Your task to perform on an android device: choose inbox layout in the gmail app Image 0: 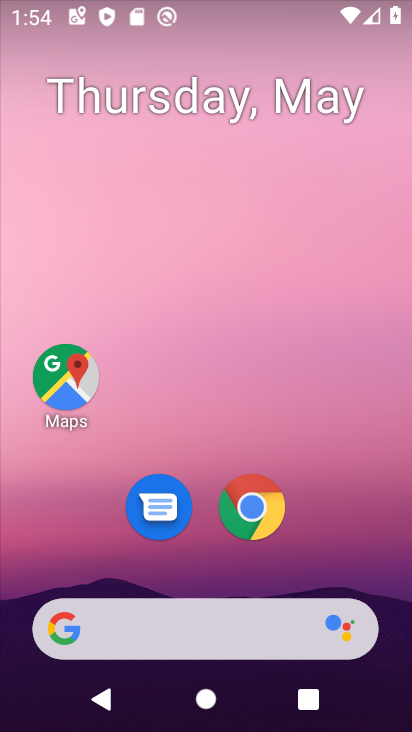
Step 0: drag from (291, 542) to (323, 69)
Your task to perform on an android device: choose inbox layout in the gmail app Image 1: 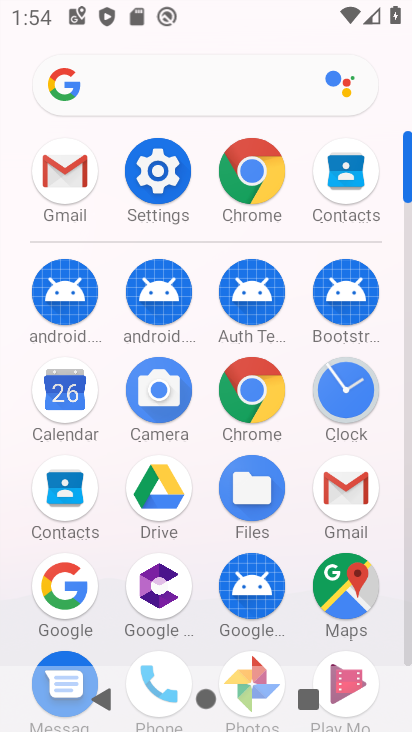
Step 1: click (353, 503)
Your task to perform on an android device: choose inbox layout in the gmail app Image 2: 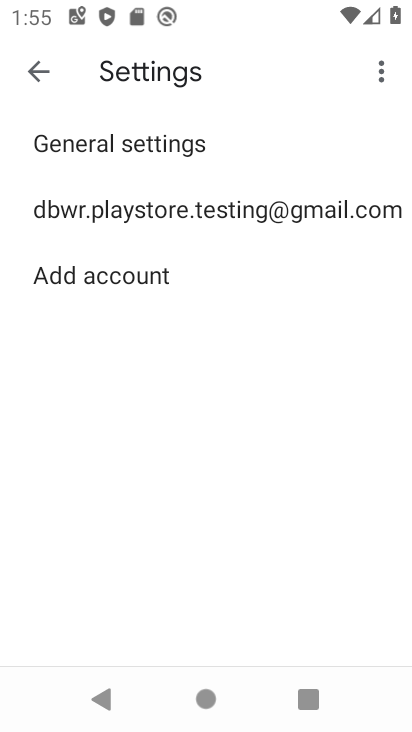
Step 2: click (295, 215)
Your task to perform on an android device: choose inbox layout in the gmail app Image 3: 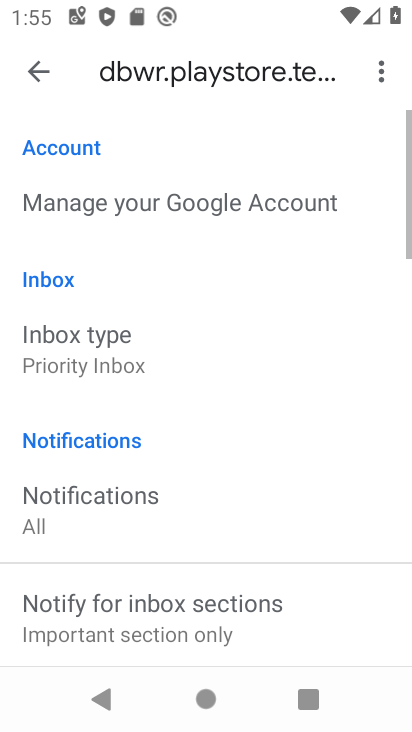
Step 3: click (161, 355)
Your task to perform on an android device: choose inbox layout in the gmail app Image 4: 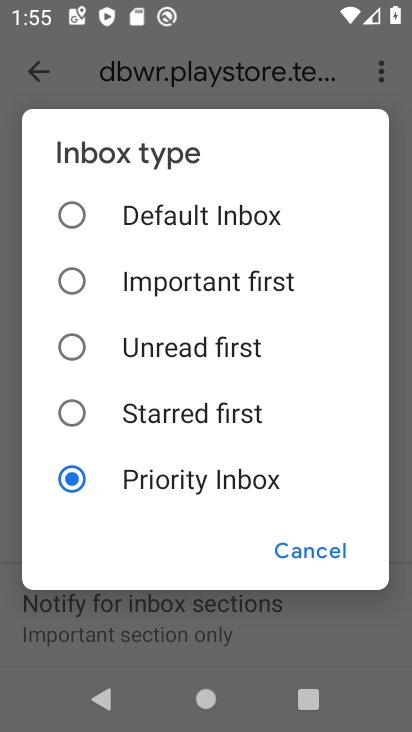
Step 4: click (80, 202)
Your task to perform on an android device: choose inbox layout in the gmail app Image 5: 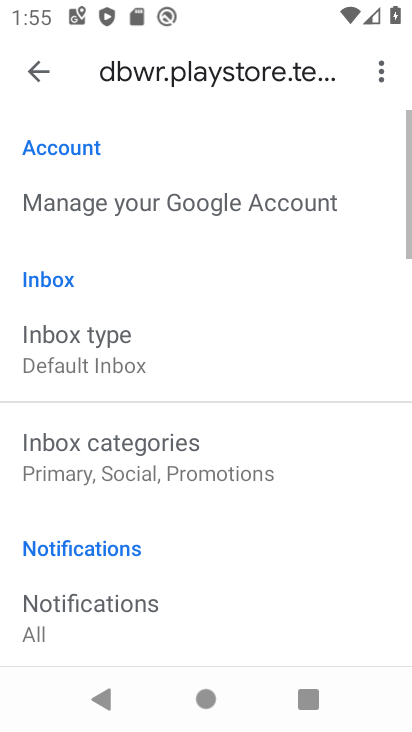
Step 5: task complete